Your task to perform on an android device: turn smart compose on in the gmail app Image 0: 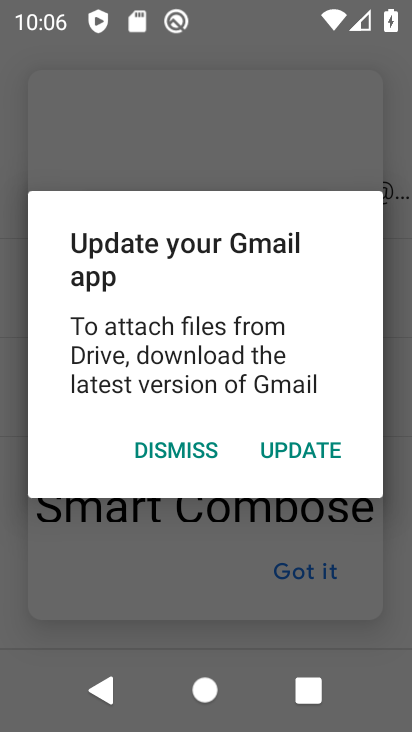
Step 0: press home button
Your task to perform on an android device: turn smart compose on in the gmail app Image 1: 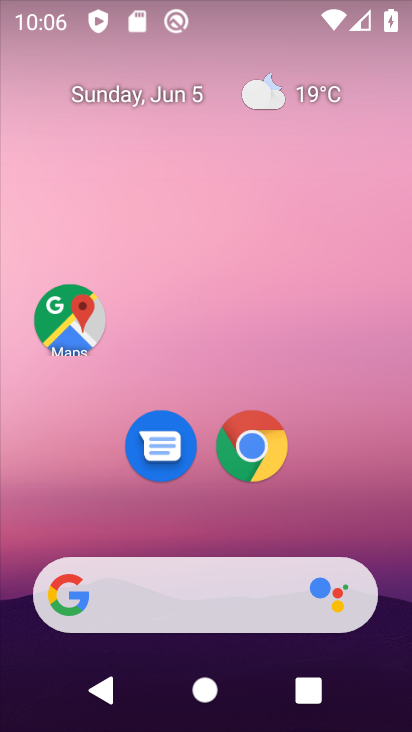
Step 1: drag from (206, 516) to (220, 39)
Your task to perform on an android device: turn smart compose on in the gmail app Image 2: 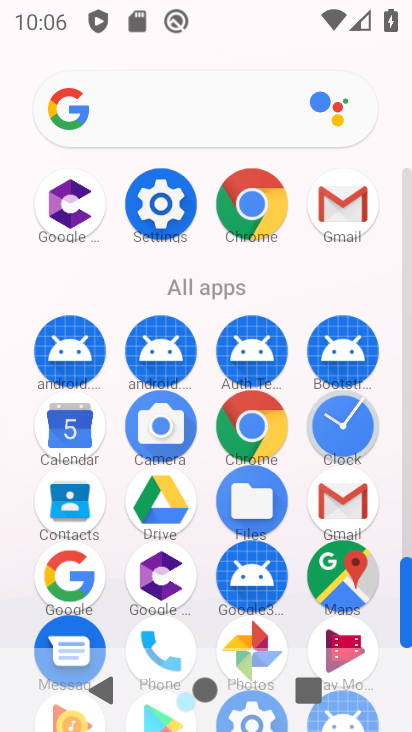
Step 2: click (340, 203)
Your task to perform on an android device: turn smart compose on in the gmail app Image 3: 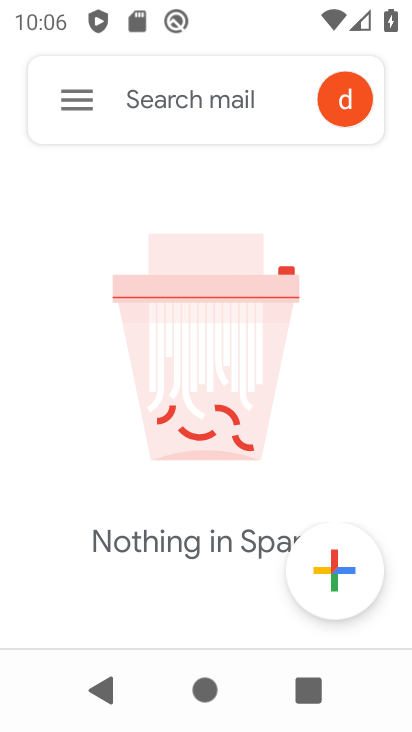
Step 3: click (81, 110)
Your task to perform on an android device: turn smart compose on in the gmail app Image 4: 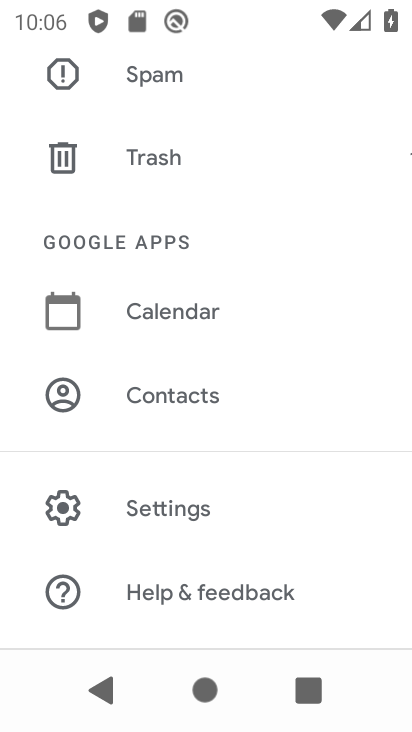
Step 4: click (186, 529)
Your task to perform on an android device: turn smart compose on in the gmail app Image 5: 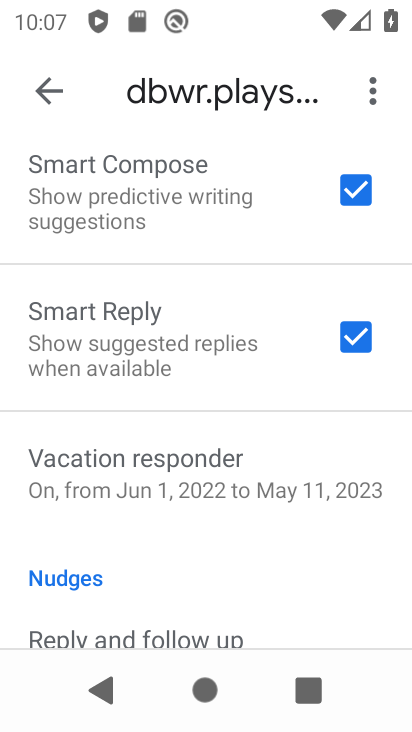
Step 5: task complete